Your task to perform on an android device: change the clock style Image 0: 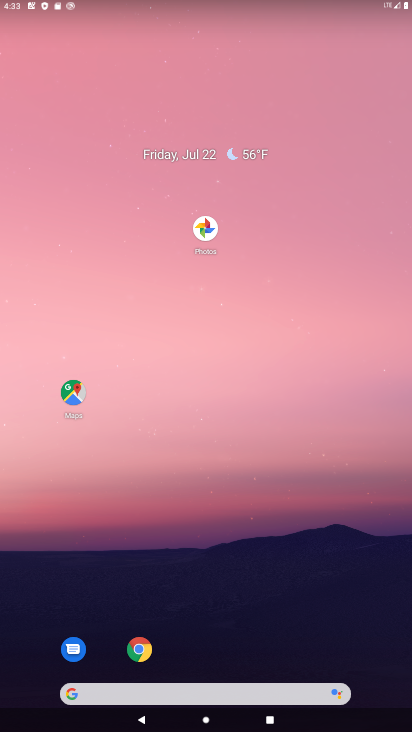
Step 0: drag from (256, 706) to (153, 143)
Your task to perform on an android device: change the clock style Image 1: 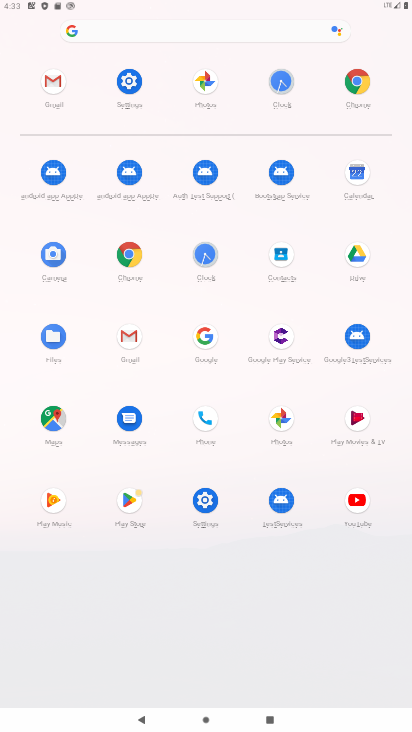
Step 1: drag from (149, 229) to (181, 109)
Your task to perform on an android device: change the clock style Image 2: 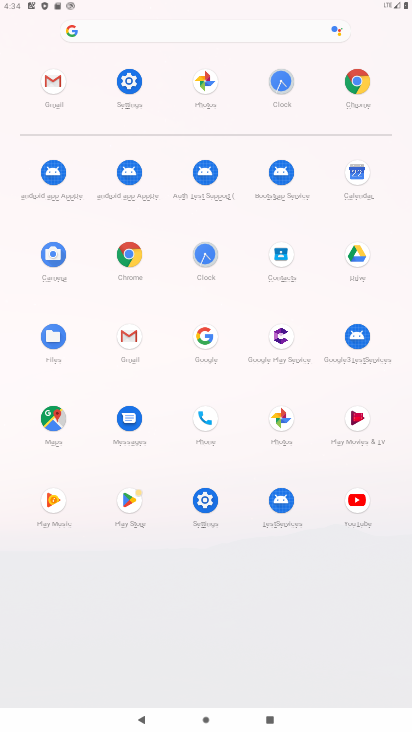
Step 2: click (209, 262)
Your task to perform on an android device: change the clock style Image 3: 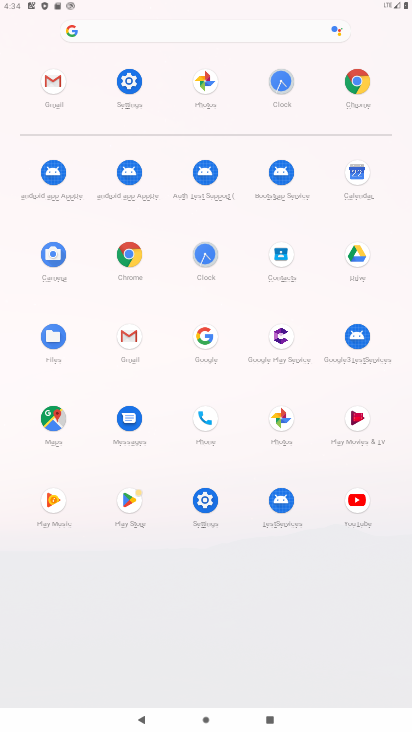
Step 3: click (209, 256)
Your task to perform on an android device: change the clock style Image 4: 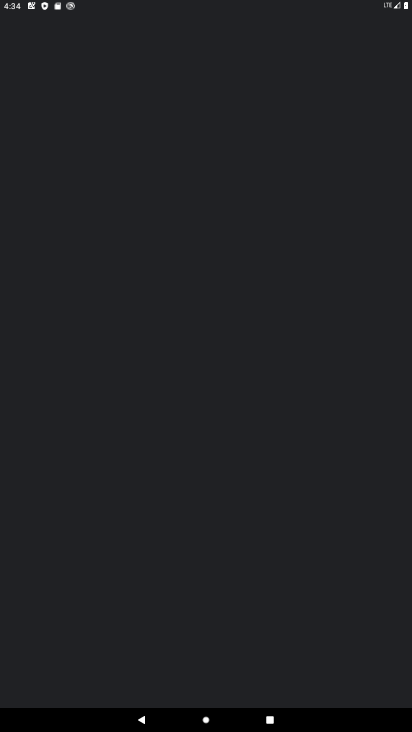
Step 4: click (209, 256)
Your task to perform on an android device: change the clock style Image 5: 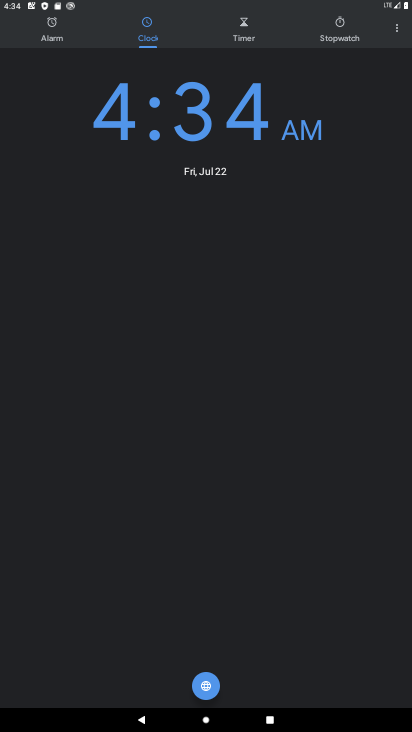
Step 5: click (210, 257)
Your task to perform on an android device: change the clock style Image 6: 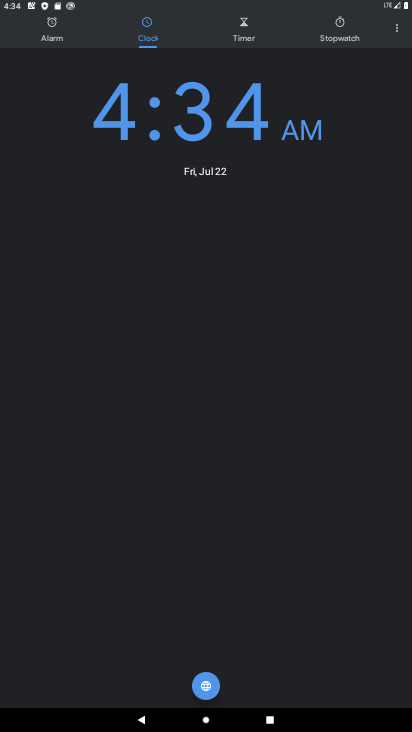
Step 6: click (398, 29)
Your task to perform on an android device: change the clock style Image 7: 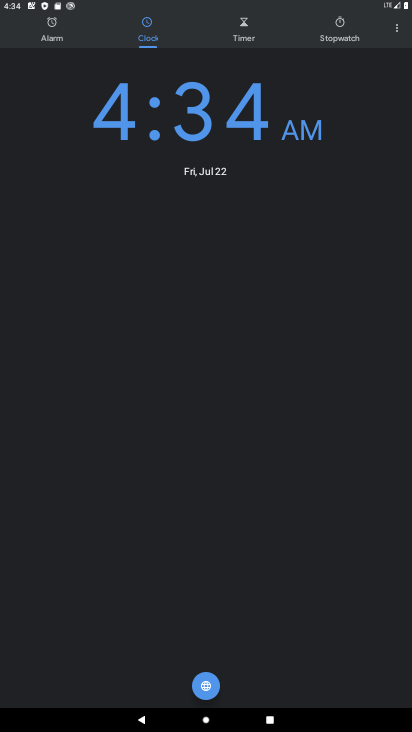
Step 7: click (398, 29)
Your task to perform on an android device: change the clock style Image 8: 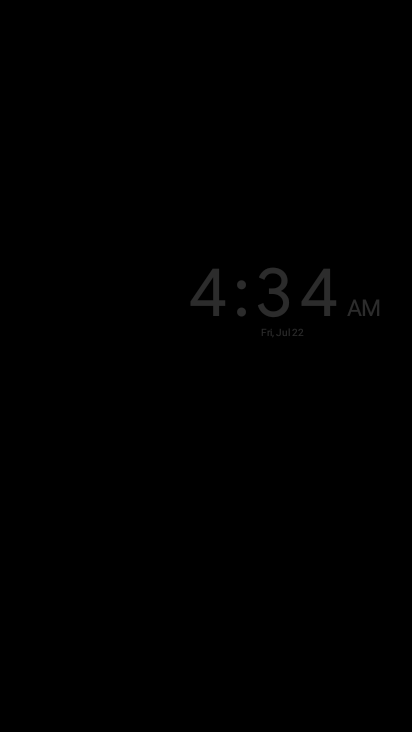
Step 8: click (398, 29)
Your task to perform on an android device: change the clock style Image 9: 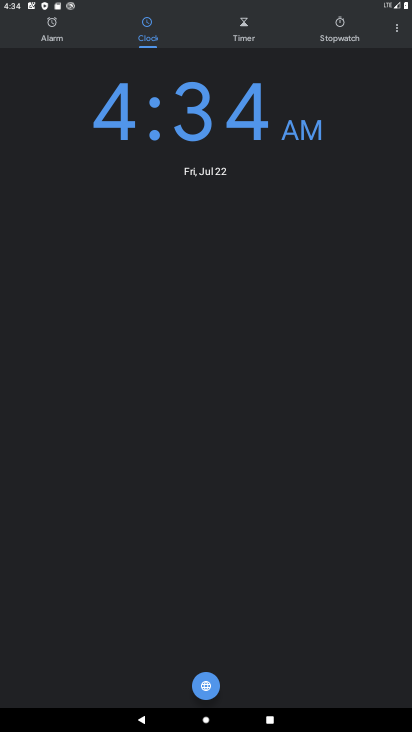
Step 9: click (206, 66)
Your task to perform on an android device: change the clock style Image 10: 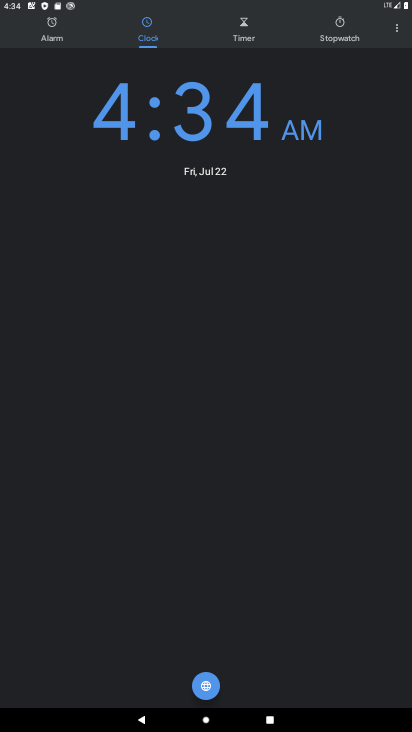
Step 10: click (210, 65)
Your task to perform on an android device: change the clock style Image 11: 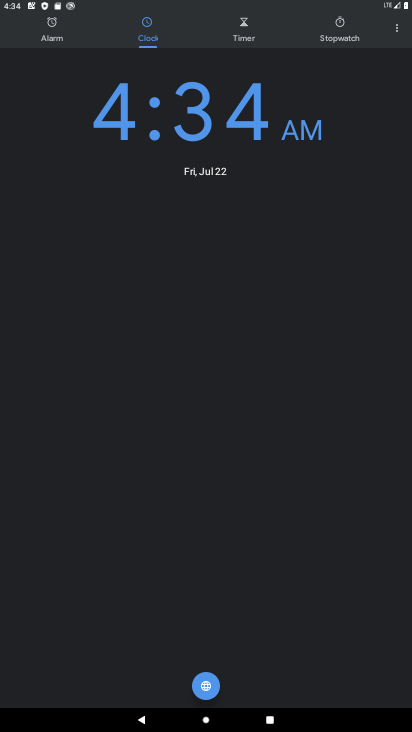
Step 11: click (394, 29)
Your task to perform on an android device: change the clock style Image 12: 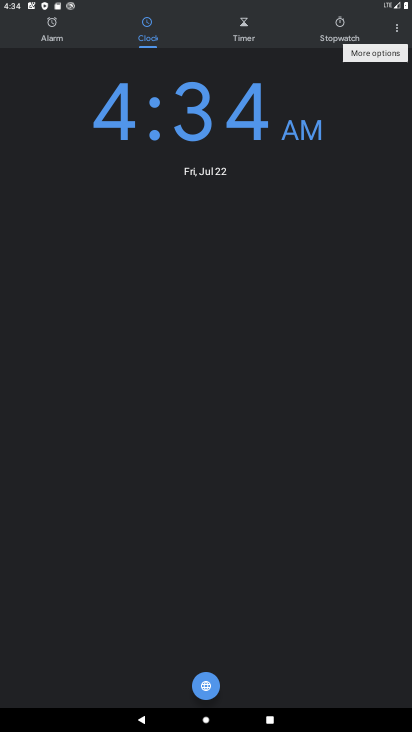
Step 12: click (389, 38)
Your task to perform on an android device: change the clock style Image 13: 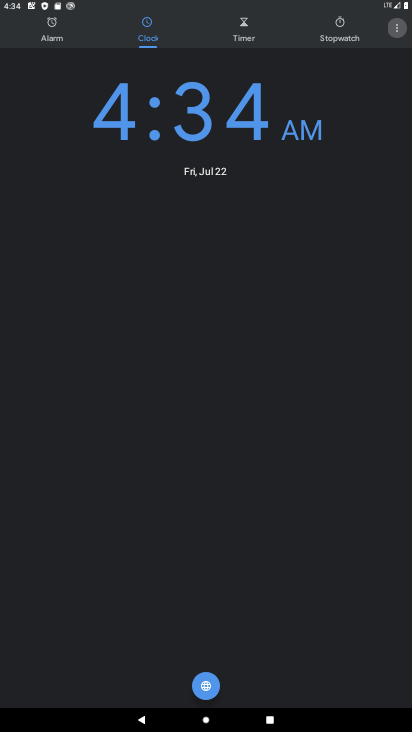
Step 13: click (399, 29)
Your task to perform on an android device: change the clock style Image 14: 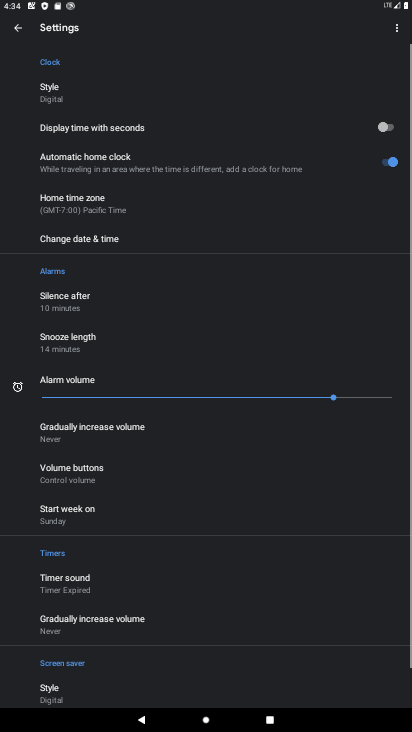
Step 14: click (310, 63)
Your task to perform on an android device: change the clock style Image 15: 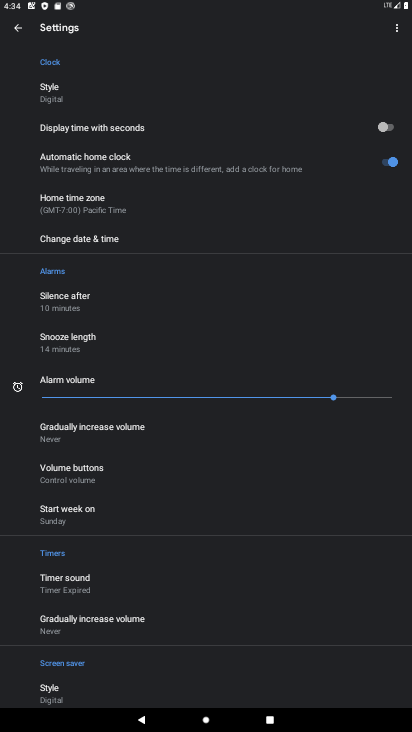
Step 15: click (53, 92)
Your task to perform on an android device: change the clock style Image 16: 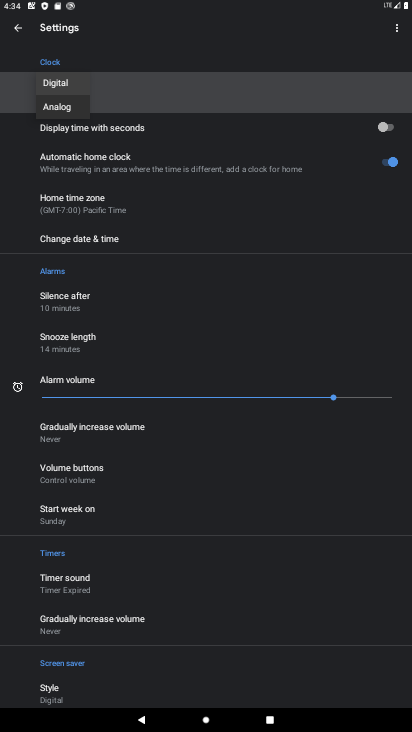
Step 16: click (54, 91)
Your task to perform on an android device: change the clock style Image 17: 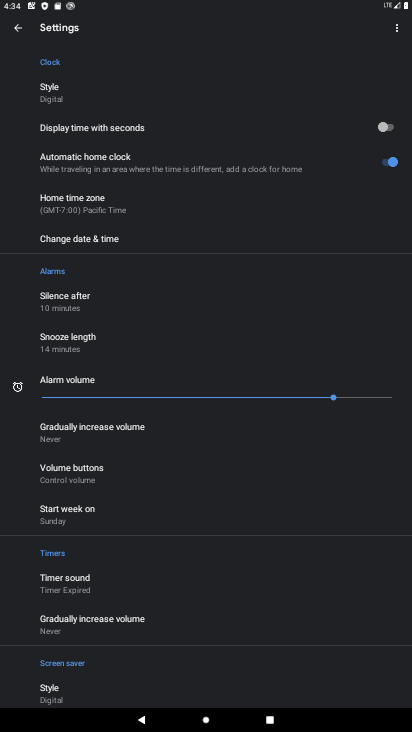
Step 17: click (50, 94)
Your task to perform on an android device: change the clock style Image 18: 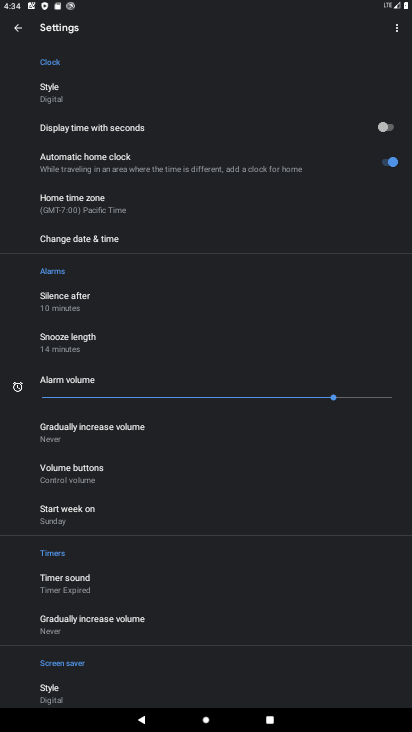
Step 18: click (57, 90)
Your task to perform on an android device: change the clock style Image 19: 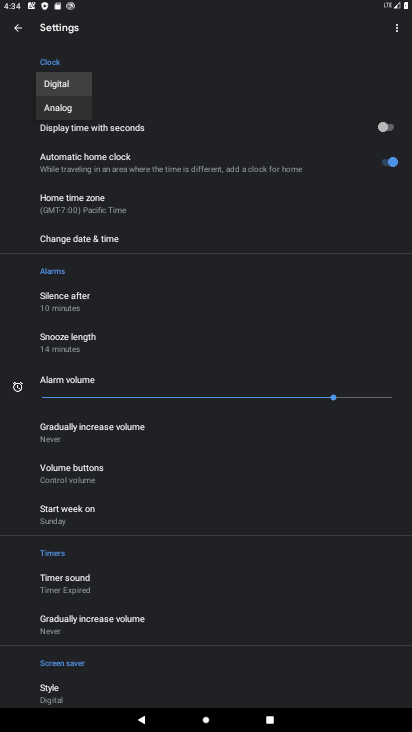
Step 19: click (56, 108)
Your task to perform on an android device: change the clock style Image 20: 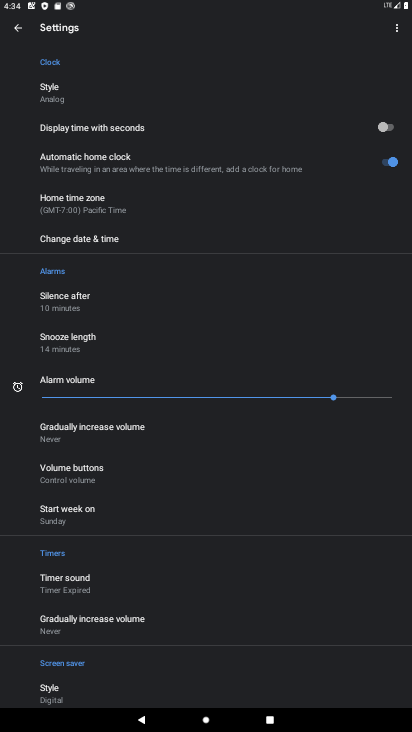
Step 20: task complete